Your task to perform on an android device: Find coffee shops on Maps Image 0: 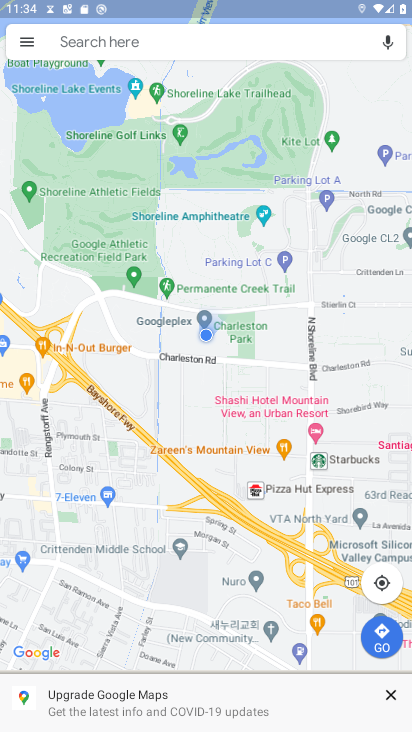
Step 0: press home button
Your task to perform on an android device: Find coffee shops on Maps Image 1: 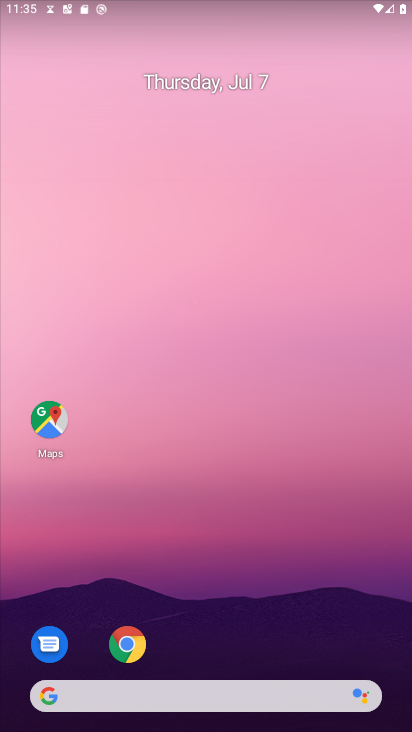
Step 1: click (45, 415)
Your task to perform on an android device: Find coffee shops on Maps Image 2: 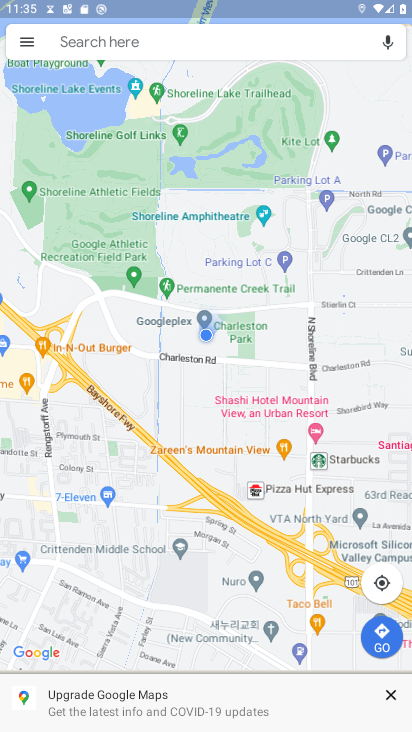
Step 2: click (131, 45)
Your task to perform on an android device: Find coffee shops on Maps Image 3: 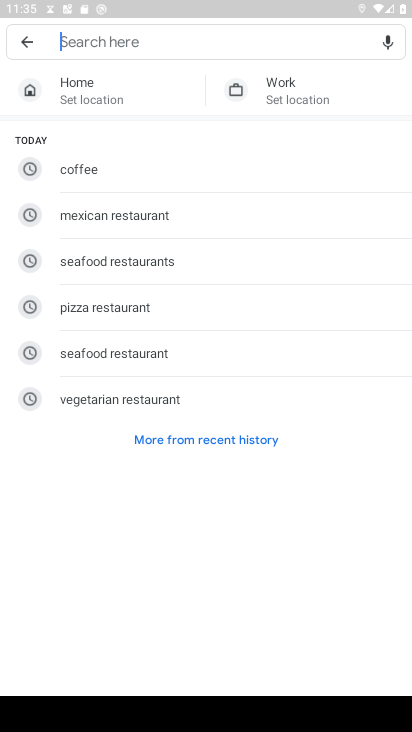
Step 3: type "coffee shops "
Your task to perform on an android device: Find coffee shops on Maps Image 4: 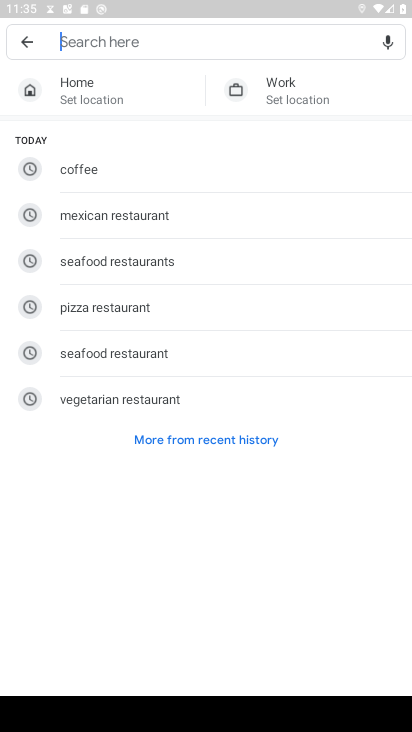
Step 4: click (83, 40)
Your task to perform on an android device: Find coffee shops on Maps Image 5: 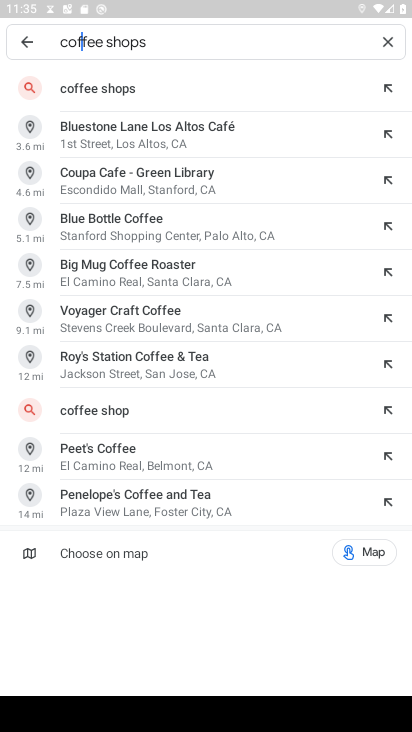
Step 5: press enter
Your task to perform on an android device: Find coffee shops on Maps Image 6: 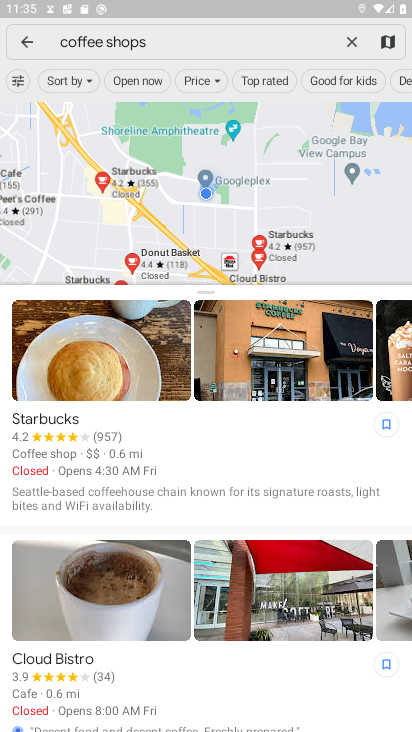
Step 6: task complete